Your task to perform on an android device: Is it going to rain tomorrow? Image 0: 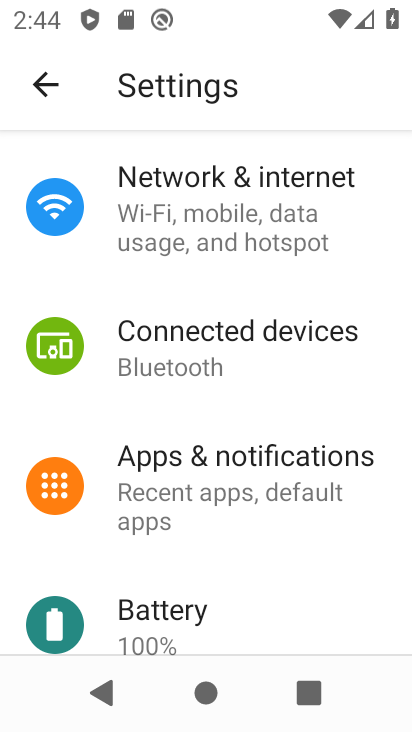
Step 0: press home button
Your task to perform on an android device: Is it going to rain tomorrow? Image 1: 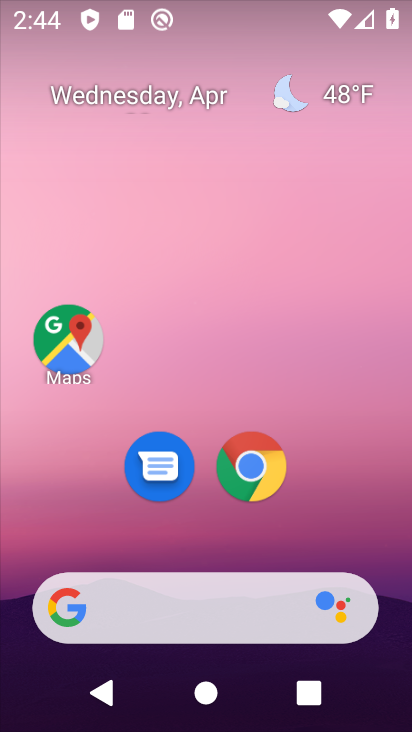
Step 1: click (242, 600)
Your task to perform on an android device: Is it going to rain tomorrow? Image 2: 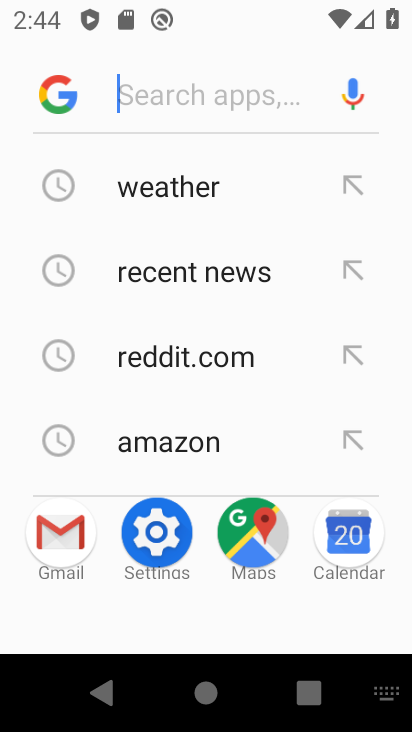
Step 2: click (203, 194)
Your task to perform on an android device: Is it going to rain tomorrow? Image 3: 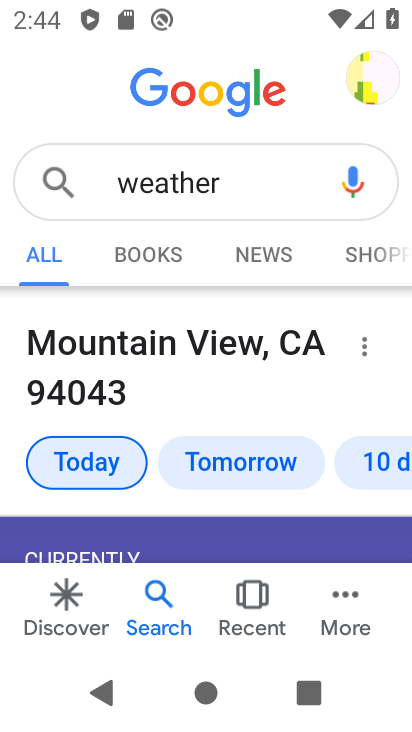
Step 3: task complete